Your task to perform on an android device: What's on my calendar tomorrow? Image 0: 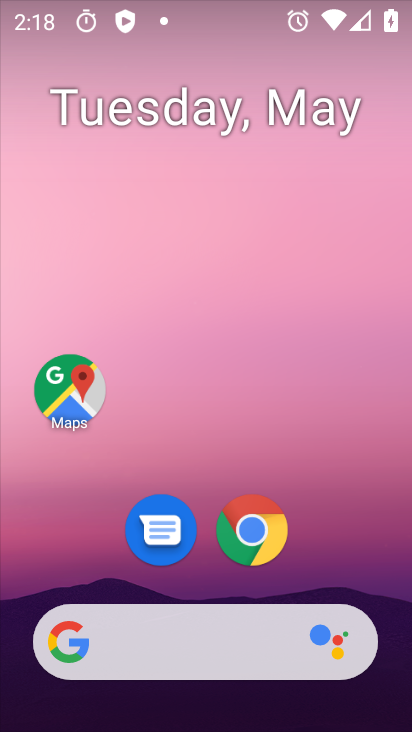
Step 0: drag from (200, 583) to (270, 50)
Your task to perform on an android device: What's on my calendar tomorrow? Image 1: 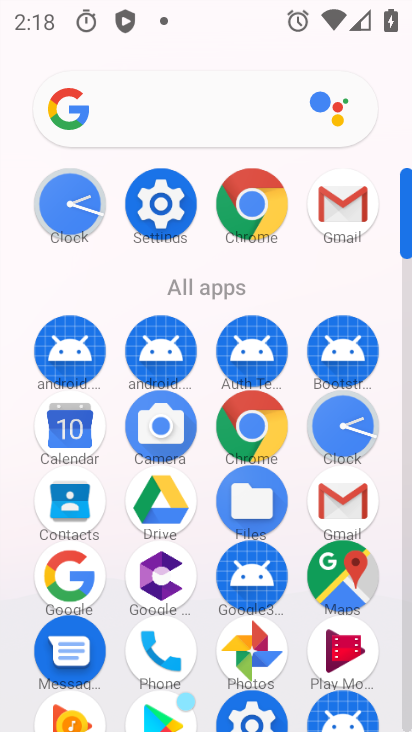
Step 1: click (76, 428)
Your task to perform on an android device: What's on my calendar tomorrow? Image 2: 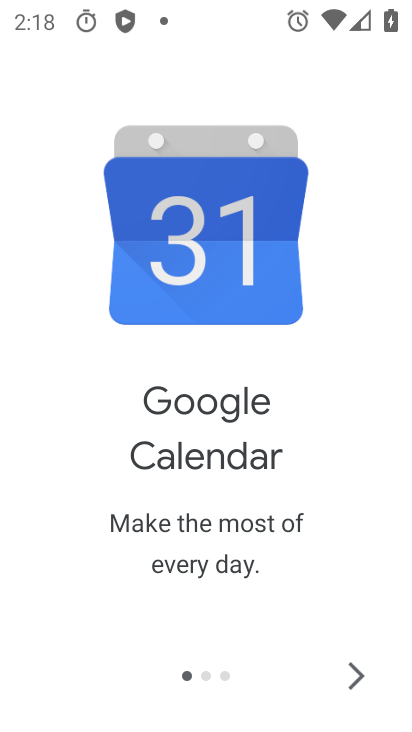
Step 2: click (347, 667)
Your task to perform on an android device: What's on my calendar tomorrow? Image 3: 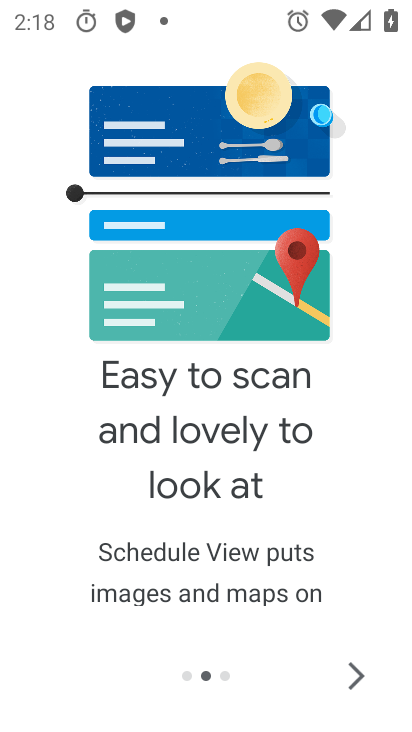
Step 3: click (362, 683)
Your task to perform on an android device: What's on my calendar tomorrow? Image 4: 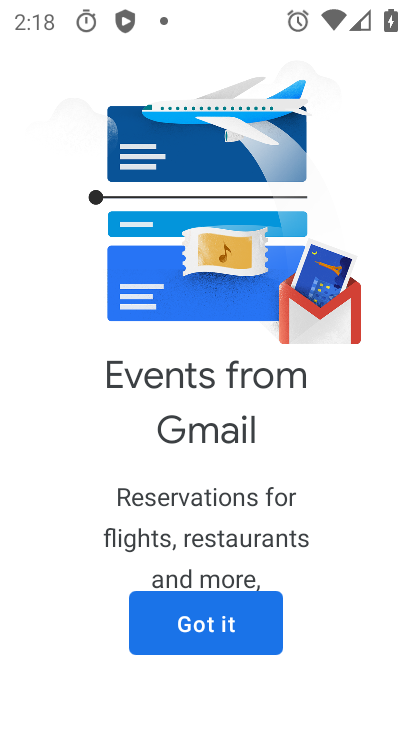
Step 4: click (231, 619)
Your task to perform on an android device: What's on my calendar tomorrow? Image 5: 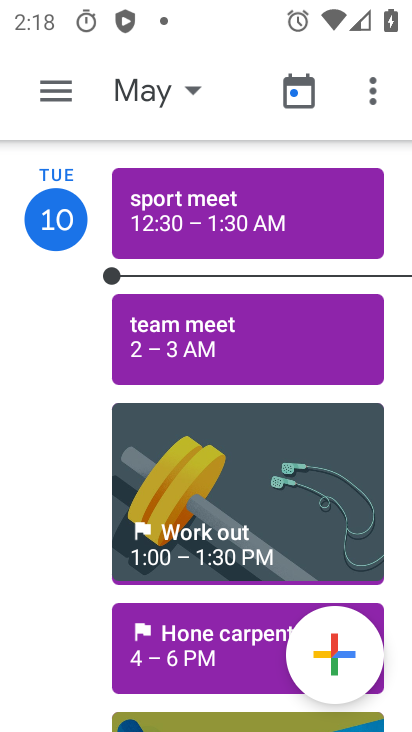
Step 5: click (52, 80)
Your task to perform on an android device: What's on my calendar tomorrow? Image 6: 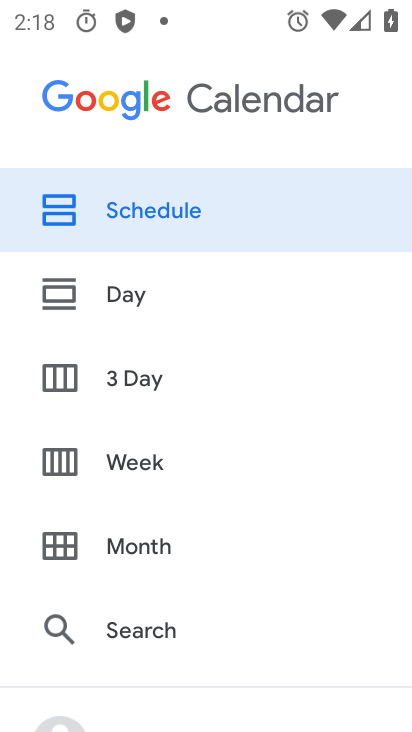
Step 6: click (160, 465)
Your task to perform on an android device: What's on my calendar tomorrow? Image 7: 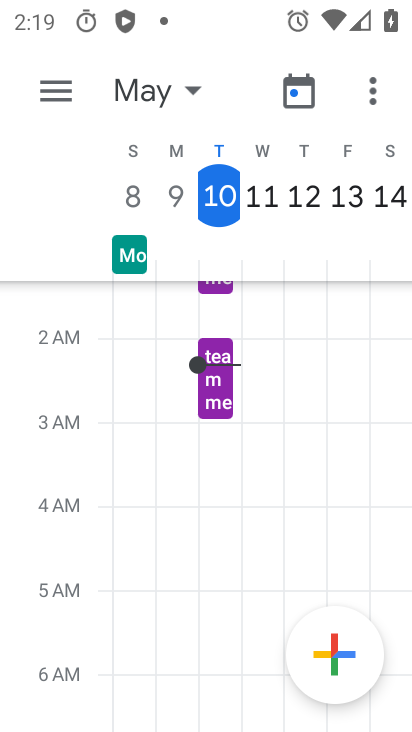
Step 7: click (259, 192)
Your task to perform on an android device: What's on my calendar tomorrow? Image 8: 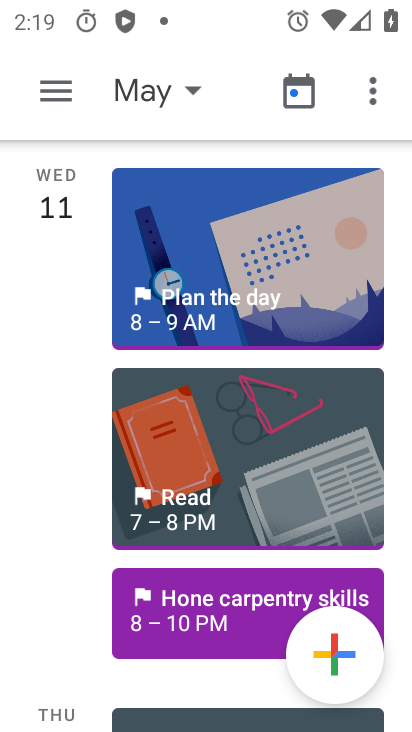
Step 8: task complete